Your task to perform on an android device: open device folders in google photos Image 0: 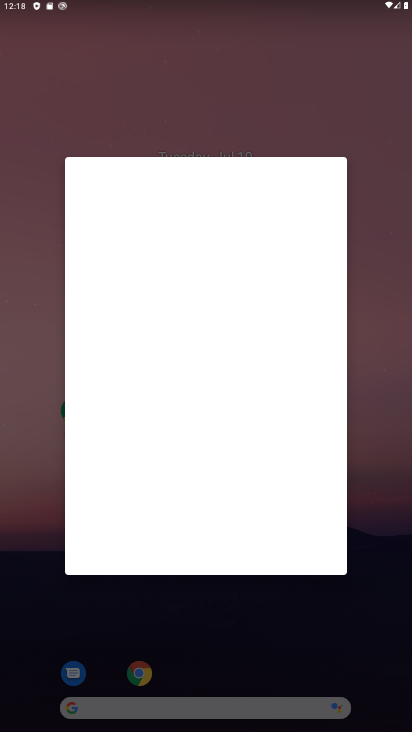
Step 0: press home button
Your task to perform on an android device: open device folders in google photos Image 1: 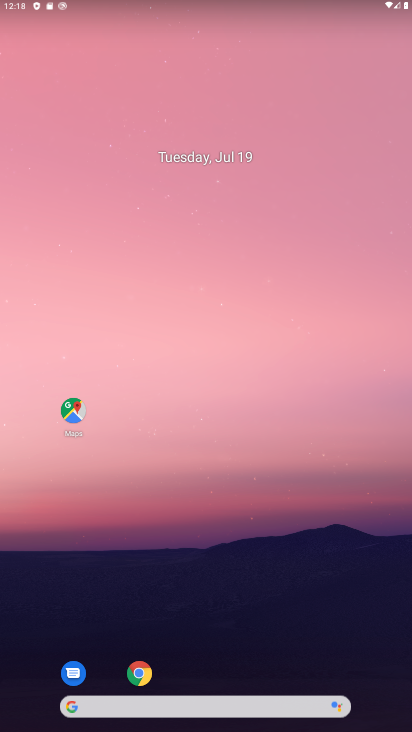
Step 1: drag from (263, 576) to (265, 271)
Your task to perform on an android device: open device folders in google photos Image 2: 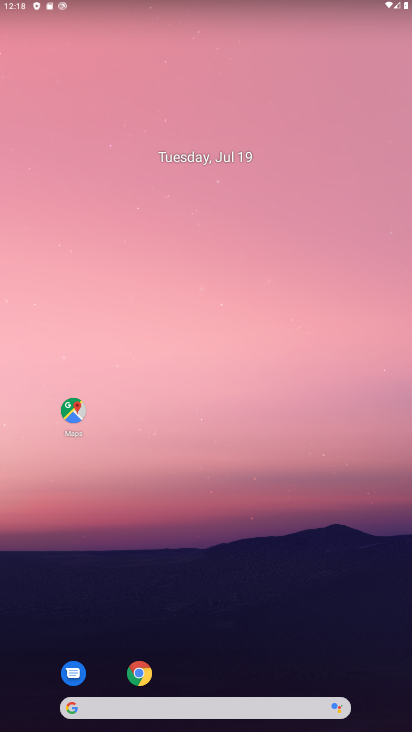
Step 2: drag from (247, 666) to (250, 208)
Your task to perform on an android device: open device folders in google photos Image 3: 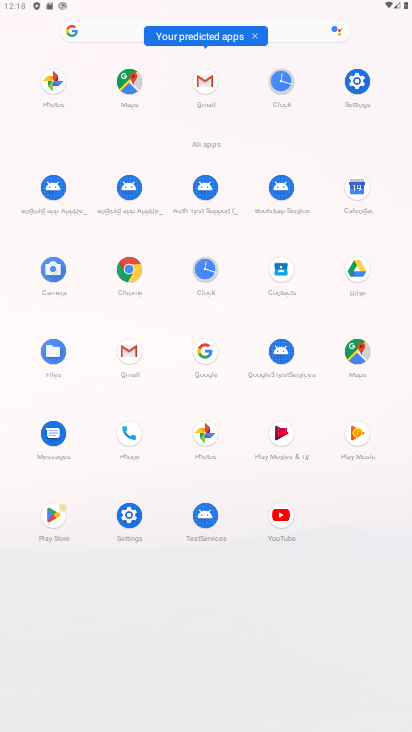
Step 3: click (199, 437)
Your task to perform on an android device: open device folders in google photos Image 4: 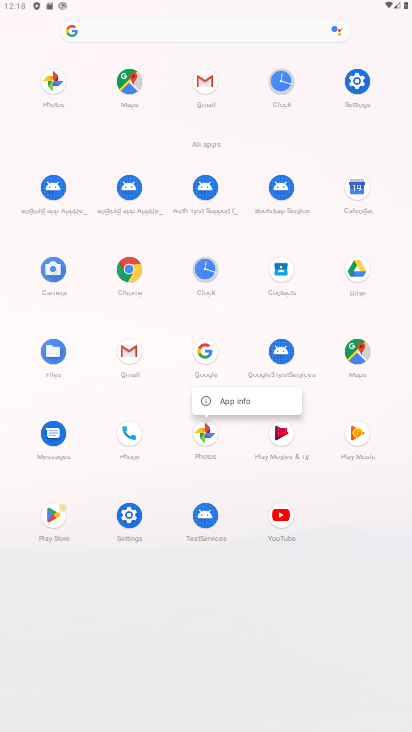
Step 4: click (209, 433)
Your task to perform on an android device: open device folders in google photos Image 5: 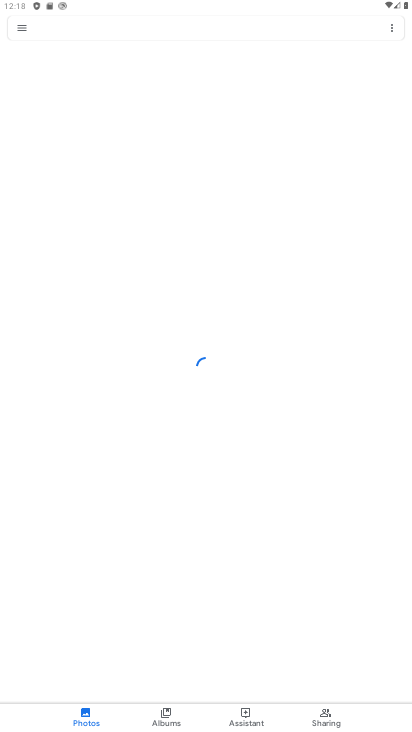
Step 5: click (51, 46)
Your task to perform on an android device: open device folders in google photos Image 6: 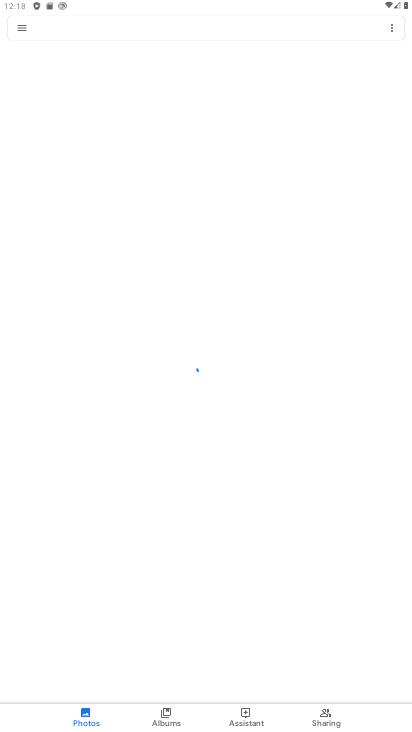
Step 6: click (29, 33)
Your task to perform on an android device: open device folders in google photos Image 7: 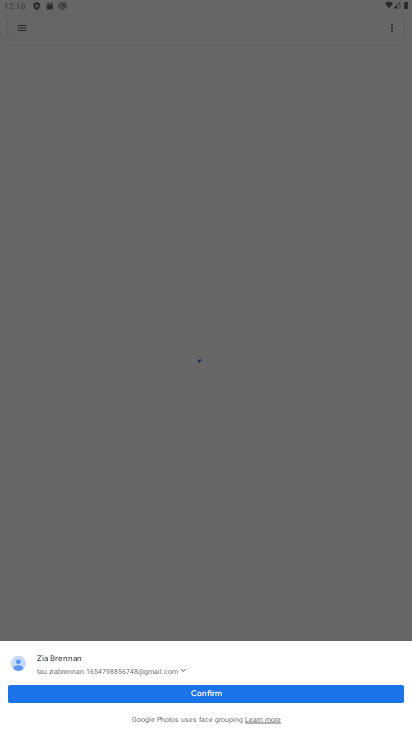
Step 7: click (29, 33)
Your task to perform on an android device: open device folders in google photos Image 8: 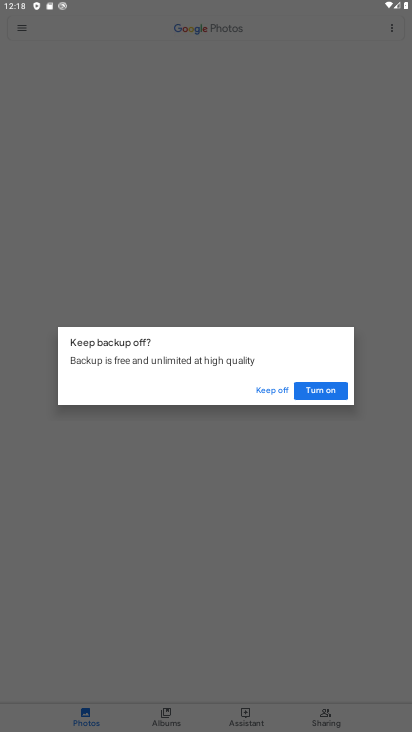
Step 8: click (279, 384)
Your task to perform on an android device: open device folders in google photos Image 9: 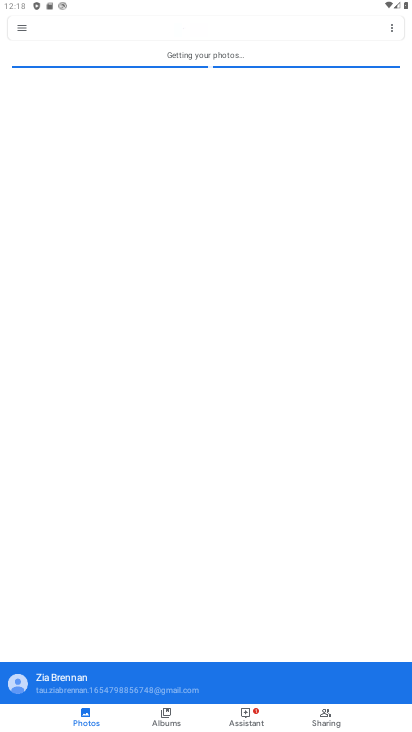
Step 9: click (26, 29)
Your task to perform on an android device: open device folders in google photos Image 10: 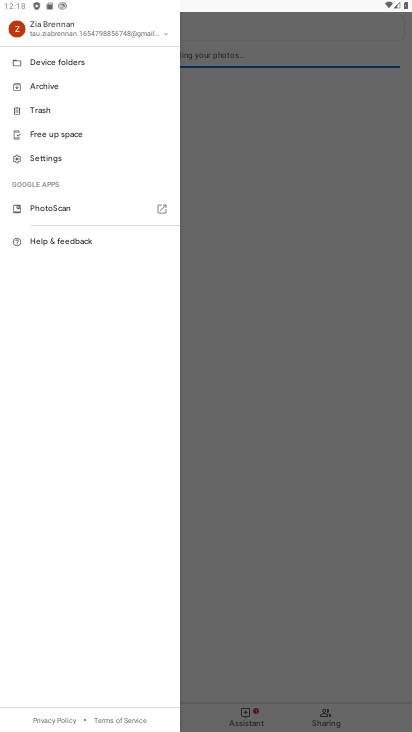
Step 10: click (68, 68)
Your task to perform on an android device: open device folders in google photos Image 11: 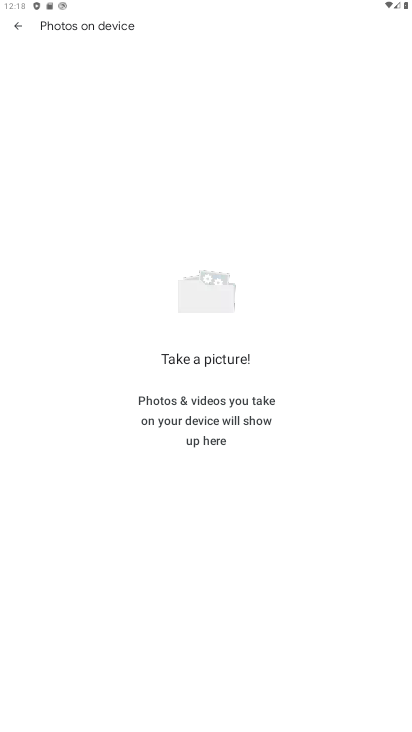
Step 11: task complete